Your task to perform on an android device: stop showing notifications on the lock screen Image 0: 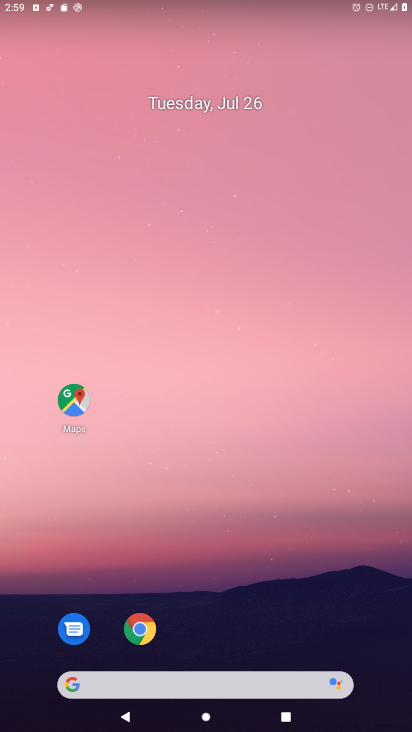
Step 0: drag from (377, 652) to (361, 261)
Your task to perform on an android device: stop showing notifications on the lock screen Image 1: 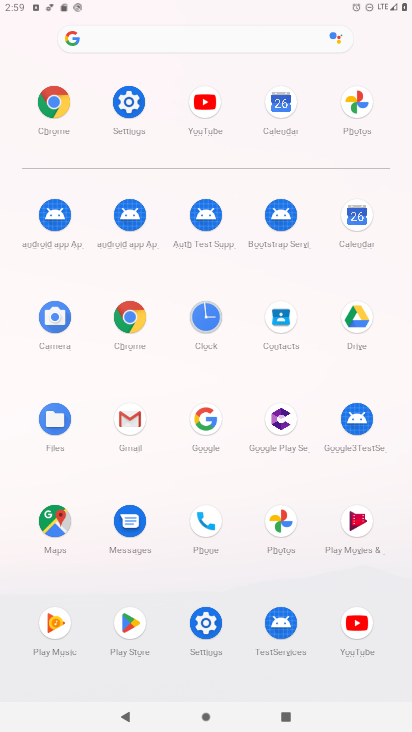
Step 1: click (206, 621)
Your task to perform on an android device: stop showing notifications on the lock screen Image 2: 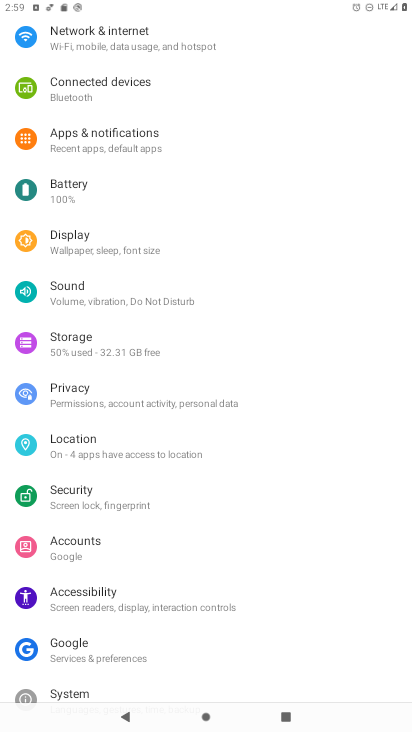
Step 2: click (89, 139)
Your task to perform on an android device: stop showing notifications on the lock screen Image 3: 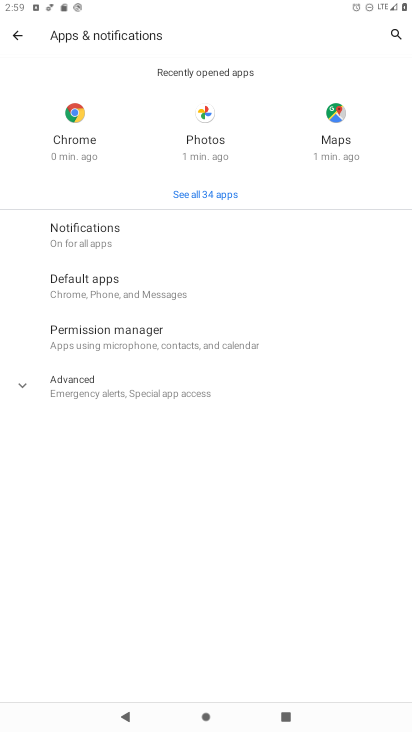
Step 3: click (72, 227)
Your task to perform on an android device: stop showing notifications on the lock screen Image 4: 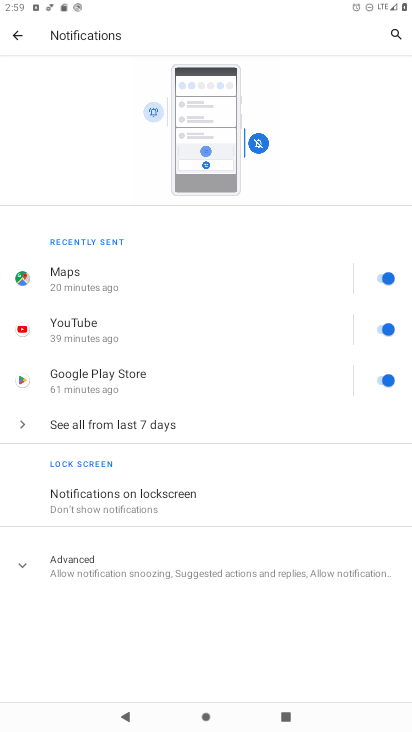
Step 4: click (109, 500)
Your task to perform on an android device: stop showing notifications on the lock screen Image 5: 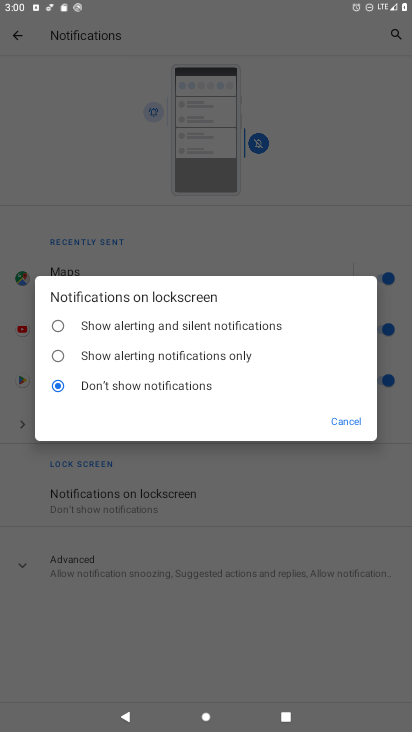
Step 5: task complete